Your task to perform on an android device: turn off data saver in the chrome app Image 0: 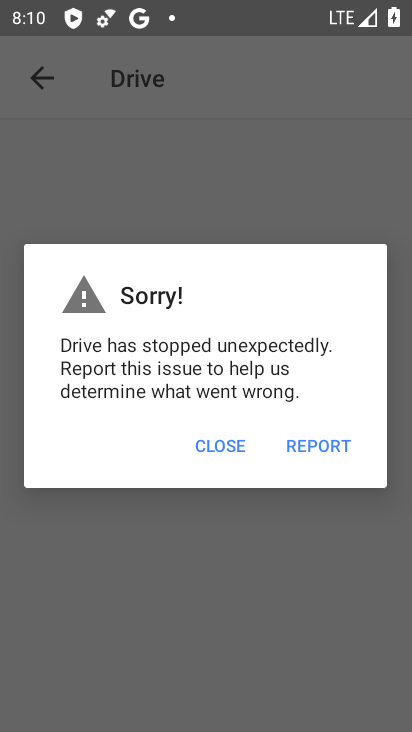
Step 0: click (216, 432)
Your task to perform on an android device: turn off data saver in the chrome app Image 1: 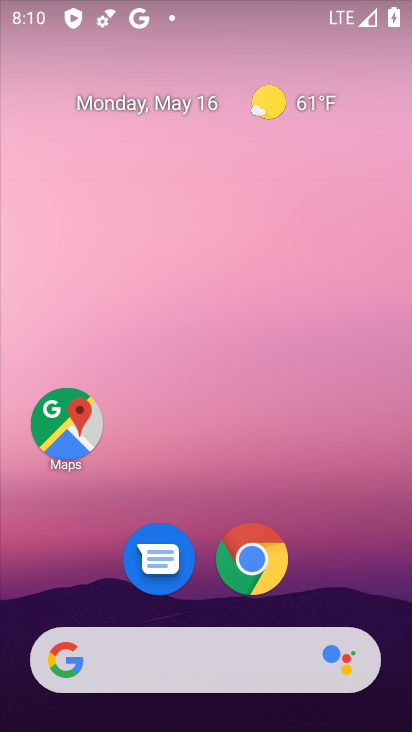
Step 1: click (242, 571)
Your task to perform on an android device: turn off data saver in the chrome app Image 2: 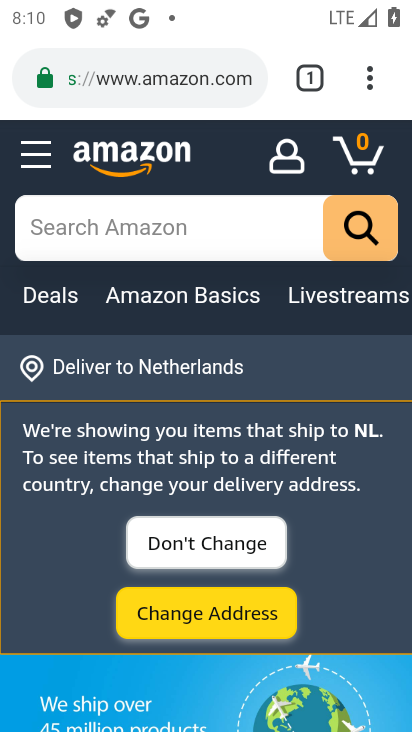
Step 2: drag from (376, 76) to (93, 615)
Your task to perform on an android device: turn off data saver in the chrome app Image 3: 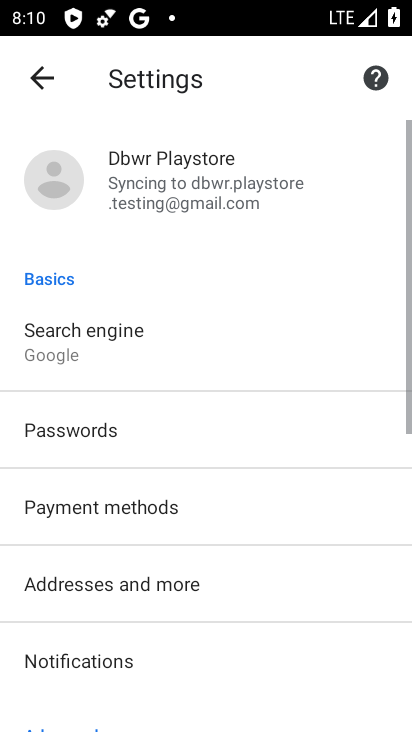
Step 3: drag from (107, 674) to (205, 131)
Your task to perform on an android device: turn off data saver in the chrome app Image 4: 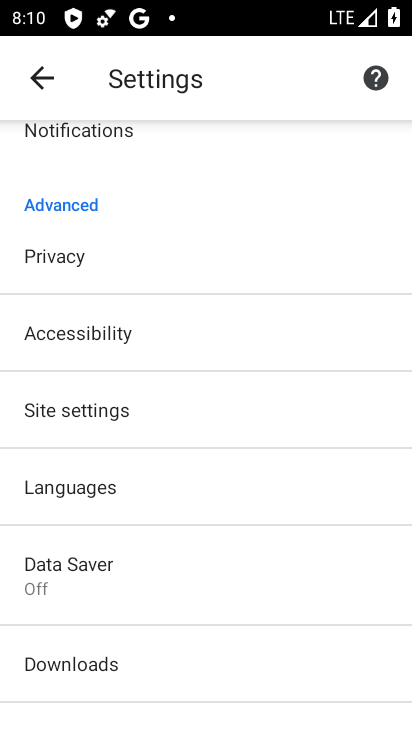
Step 4: click (59, 578)
Your task to perform on an android device: turn off data saver in the chrome app Image 5: 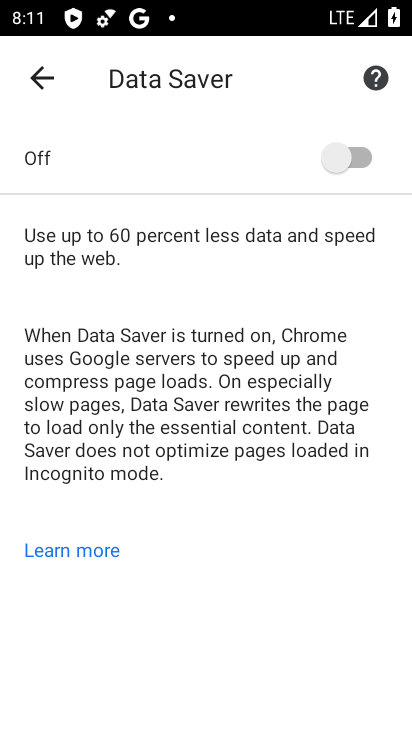
Step 5: task complete